Your task to perform on an android device: allow notifications from all sites in the chrome app Image 0: 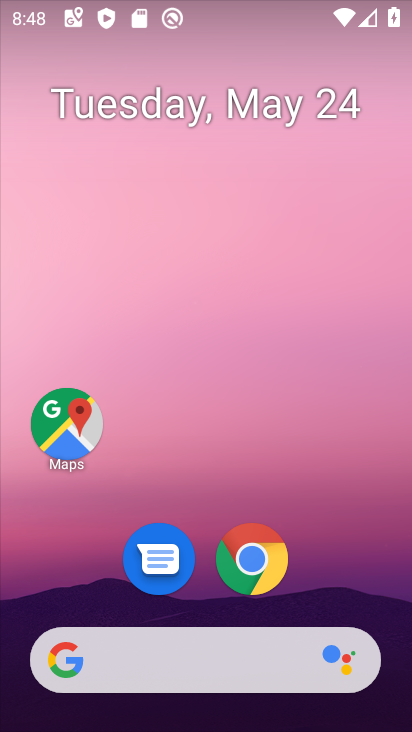
Step 0: drag from (230, 647) to (179, 202)
Your task to perform on an android device: allow notifications from all sites in the chrome app Image 1: 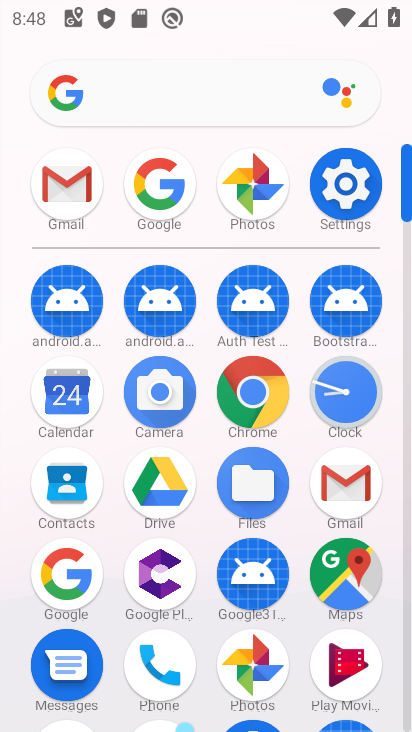
Step 1: click (250, 385)
Your task to perform on an android device: allow notifications from all sites in the chrome app Image 2: 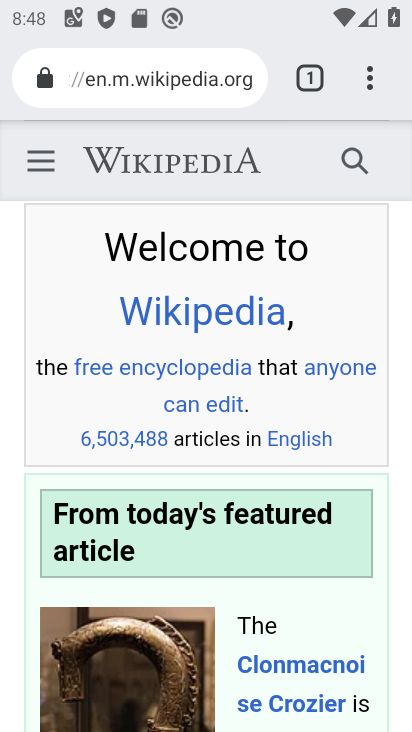
Step 2: drag from (366, 85) to (117, 617)
Your task to perform on an android device: allow notifications from all sites in the chrome app Image 3: 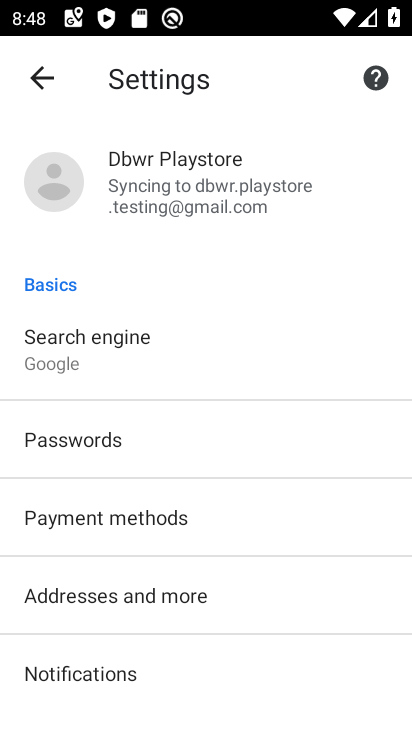
Step 3: drag from (125, 651) to (117, 332)
Your task to perform on an android device: allow notifications from all sites in the chrome app Image 4: 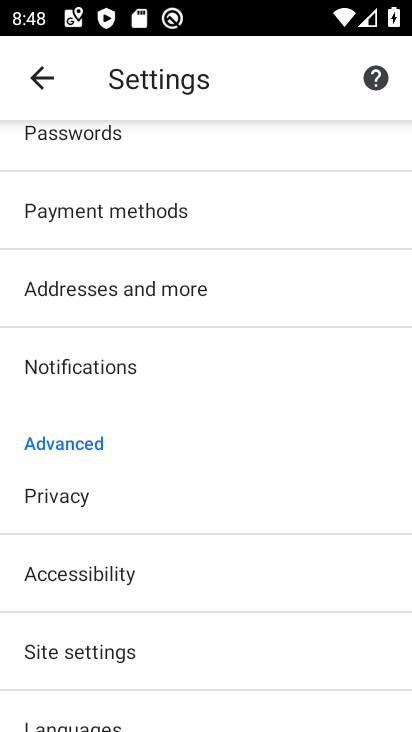
Step 4: click (81, 656)
Your task to perform on an android device: allow notifications from all sites in the chrome app Image 5: 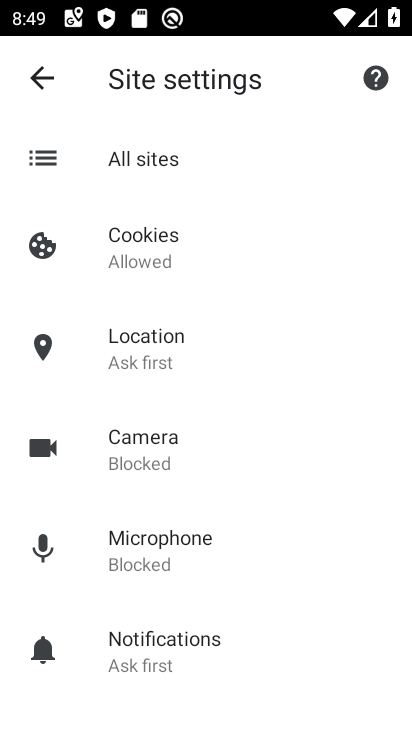
Step 5: click (178, 648)
Your task to perform on an android device: allow notifications from all sites in the chrome app Image 6: 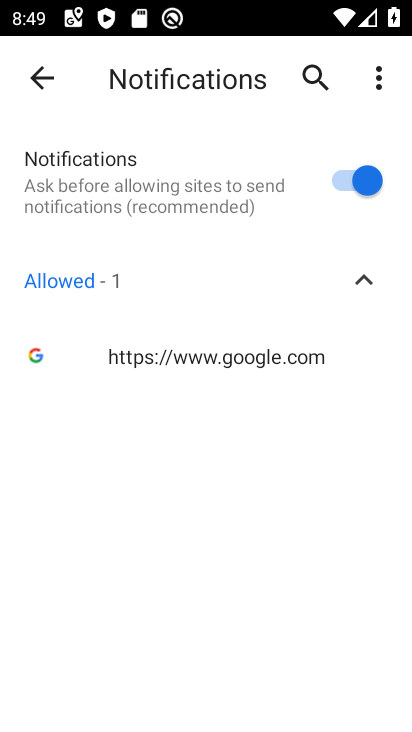
Step 6: task complete